Your task to perform on an android device: Open Google Chrome Image 0: 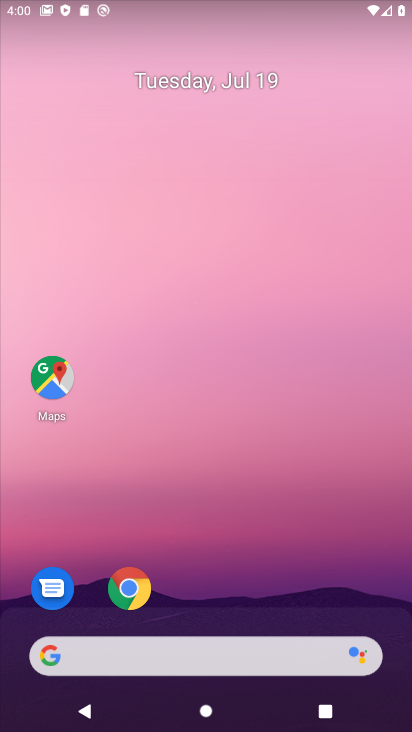
Step 0: drag from (203, 622) to (251, 220)
Your task to perform on an android device: Open Google Chrome Image 1: 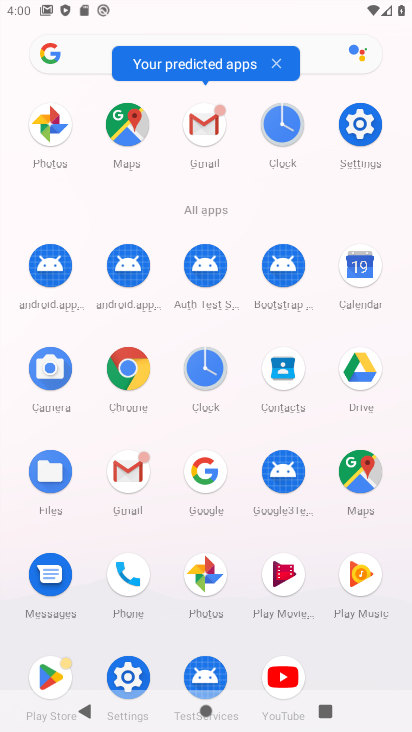
Step 1: click (120, 374)
Your task to perform on an android device: Open Google Chrome Image 2: 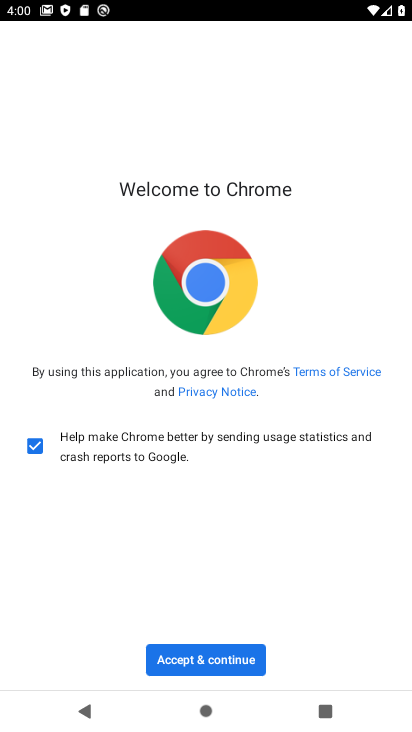
Step 2: click (218, 660)
Your task to perform on an android device: Open Google Chrome Image 3: 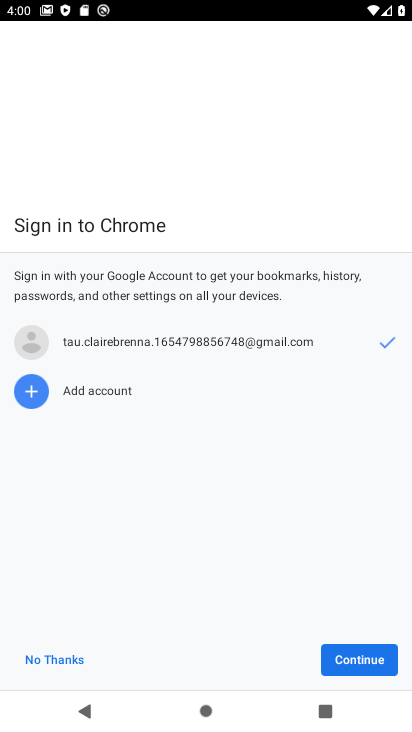
Step 3: click (356, 665)
Your task to perform on an android device: Open Google Chrome Image 4: 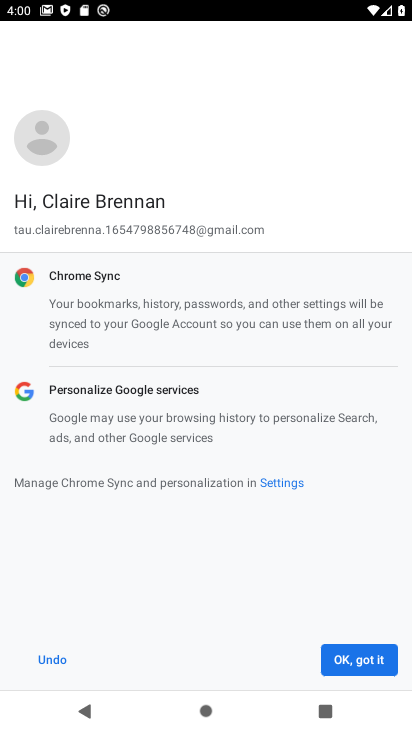
Step 4: click (360, 663)
Your task to perform on an android device: Open Google Chrome Image 5: 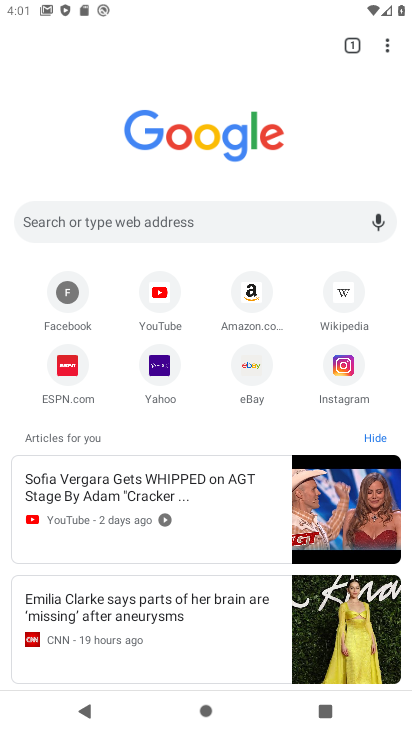
Step 5: task complete